Your task to perform on an android device: move an email to a new category in the gmail app Image 0: 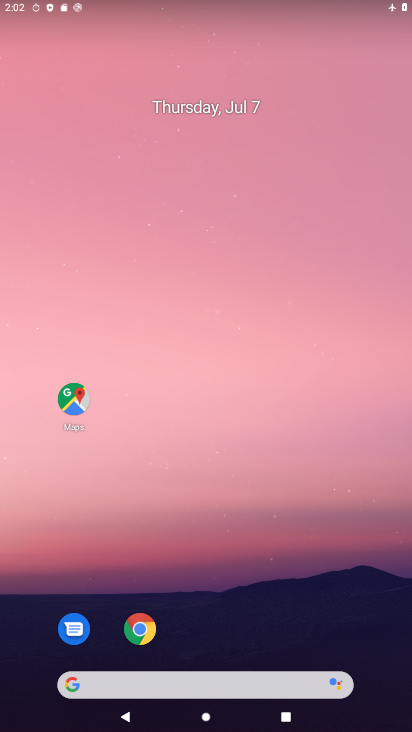
Step 0: drag from (258, 608) to (292, 59)
Your task to perform on an android device: move an email to a new category in the gmail app Image 1: 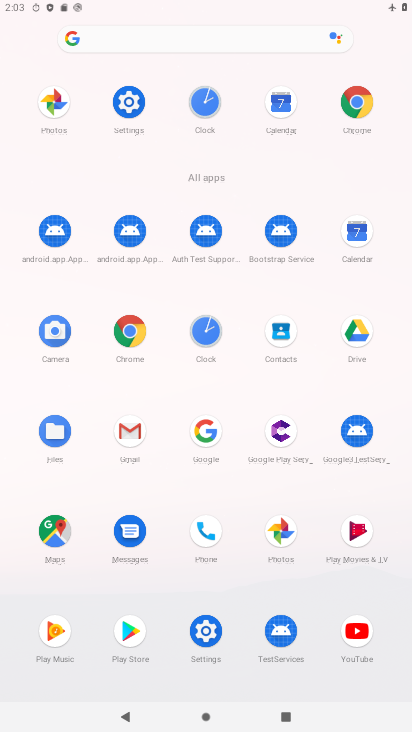
Step 1: click (122, 434)
Your task to perform on an android device: move an email to a new category in the gmail app Image 2: 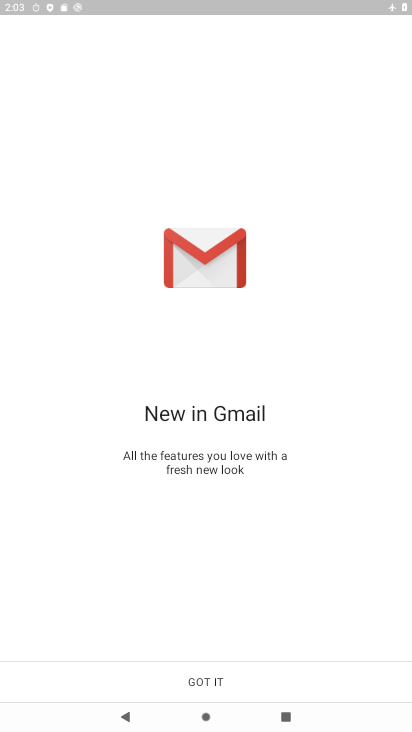
Step 2: click (211, 682)
Your task to perform on an android device: move an email to a new category in the gmail app Image 3: 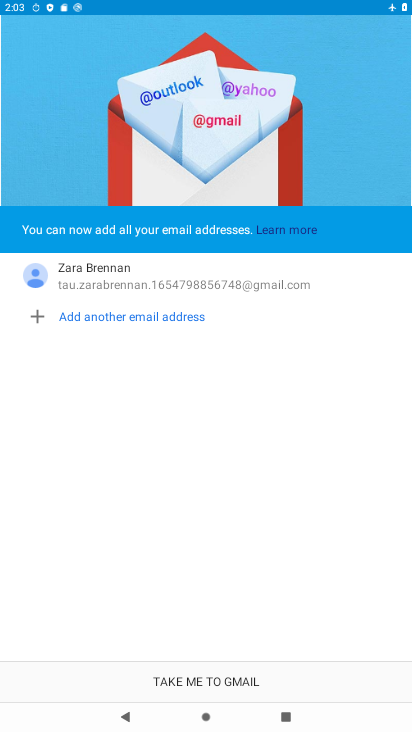
Step 3: click (241, 680)
Your task to perform on an android device: move an email to a new category in the gmail app Image 4: 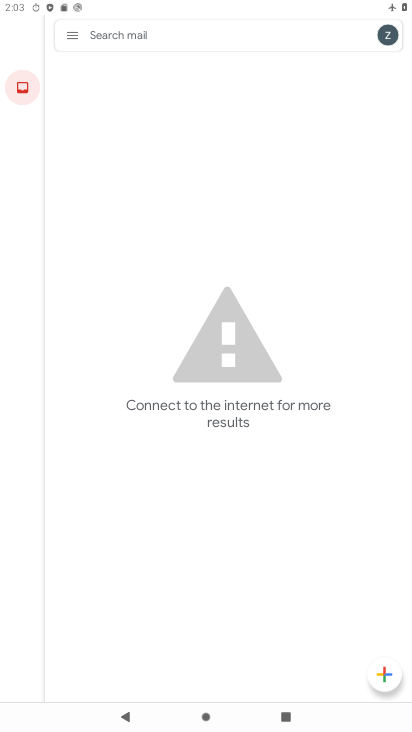
Step 4: task complete